Your task to perform on an android device: find photos in the google photos app Image 0: 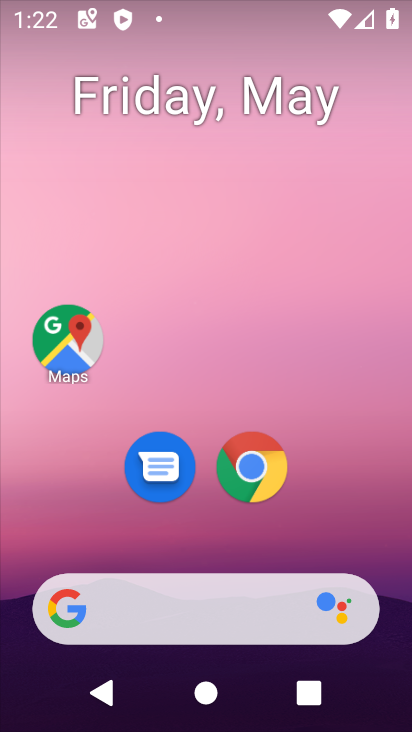
Step 0: drag from (370, 491) to (409, 57)
Your task to perform on an android device: find photos in the google photos app Image 1: 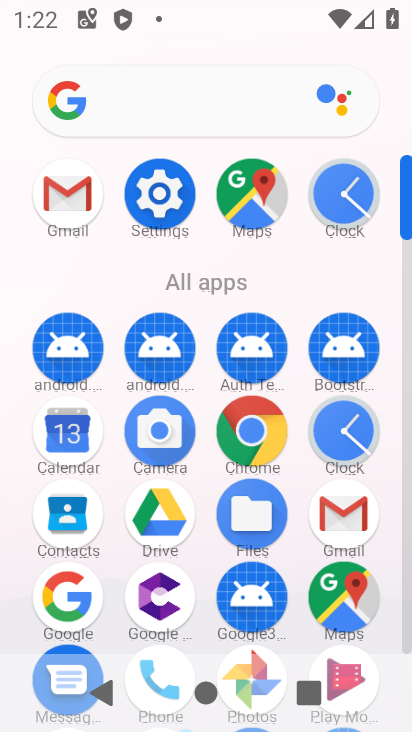
Step 1: drag from (370, 543) to (338, 223)
Your task to perform on an android device: find photos in the google photos app Image 2: 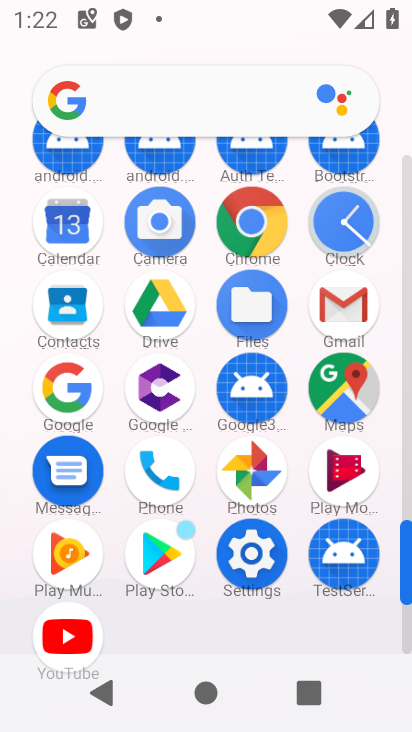
Step 2: click (230, 484)
Your task to perform on an android device: find photos in the google photos app Image 3: 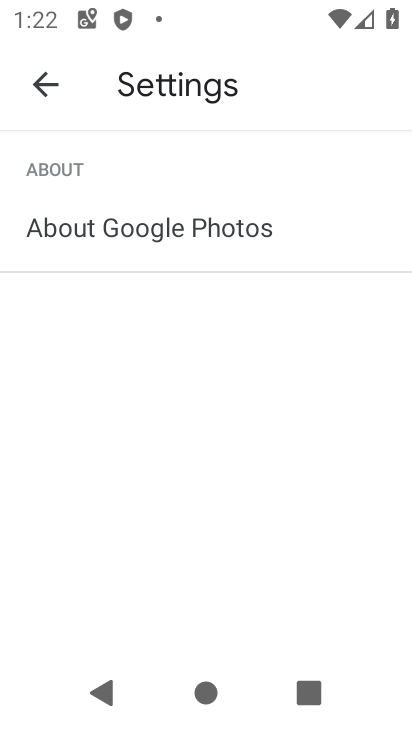
Step 3: click (23, 86)
Your task to perform on an android device: find photos in the google photos app Image 4: 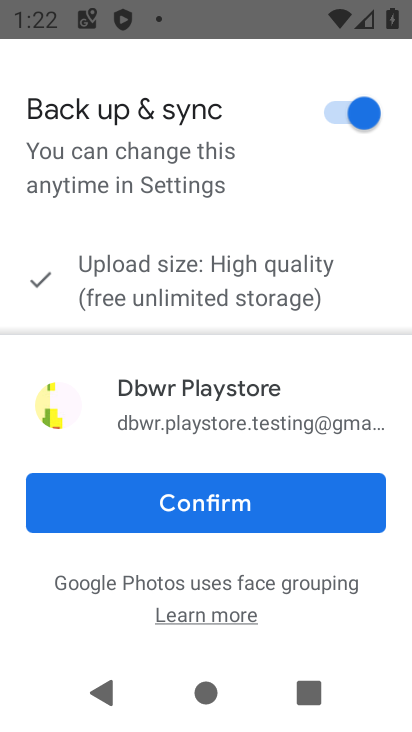
Step 4: click (238, 504)
Your task to perform on an android device: find photos in the google photos app Image 5: 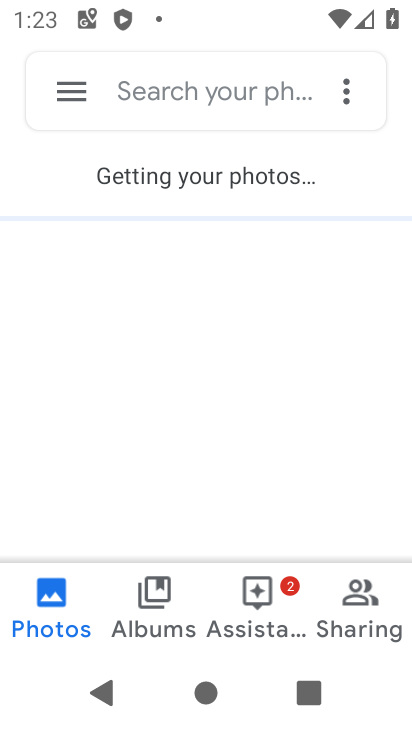
Step 5: click (175, 378)
Your task to perform on an android device: find photos in the google photos app Image 6: 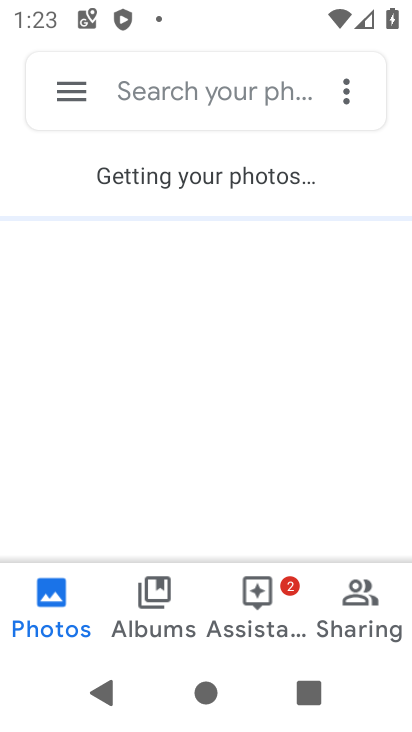
Step 6: click (41, 589)
Your task to perform on an android device: find photos in the google photos app Image 7: 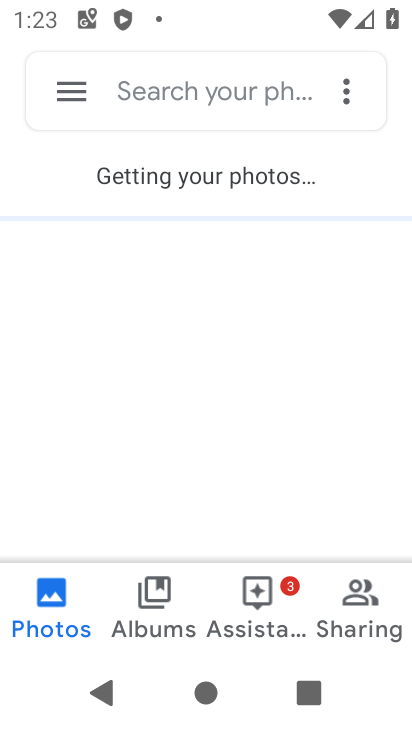
Step 7: click (61, 609)
Your task to perform on an android device: find photos in the google photos app Image 8: 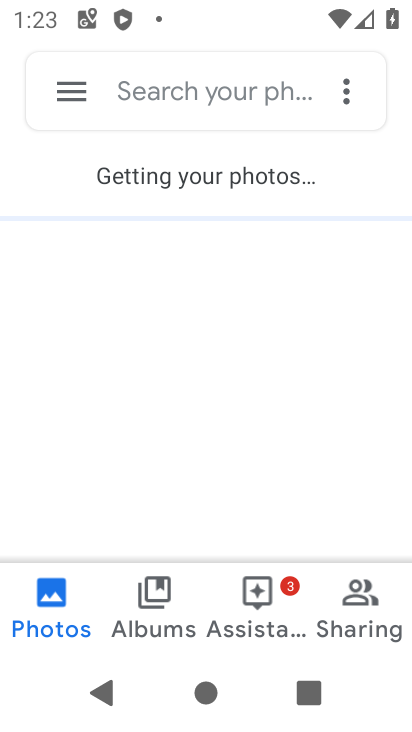
Step 8: click (61, 610)
Your task to perform on an android device: find photos in the google photos app Image 9: 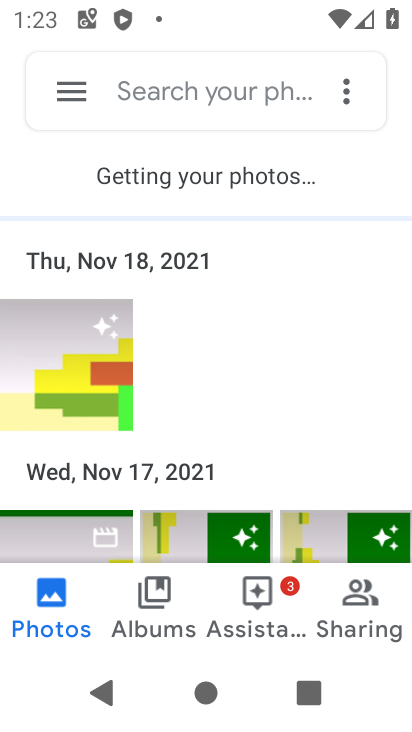
Step 9: click (108, 386)
Your task to perform on an android device: find photos in the google photos app Image 10: 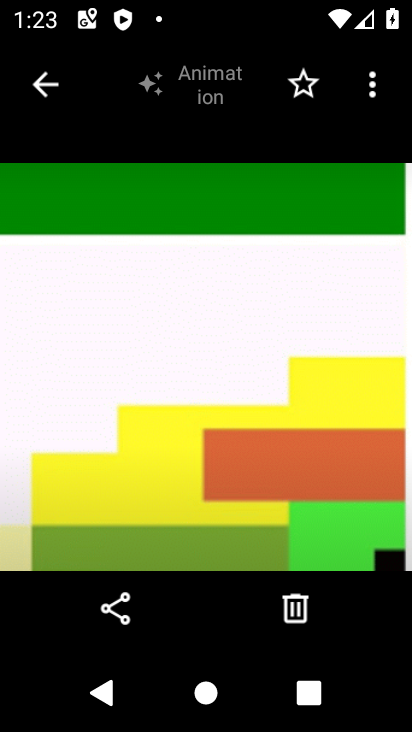
Step 10: task complete